Your task to perform on an android device: check data usage Image 0: 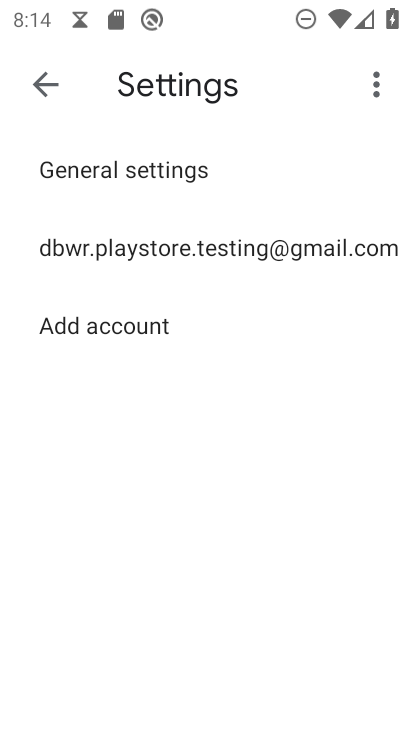
Step 0: press home button
Your task to perform on an android device: check data usage Image 1: 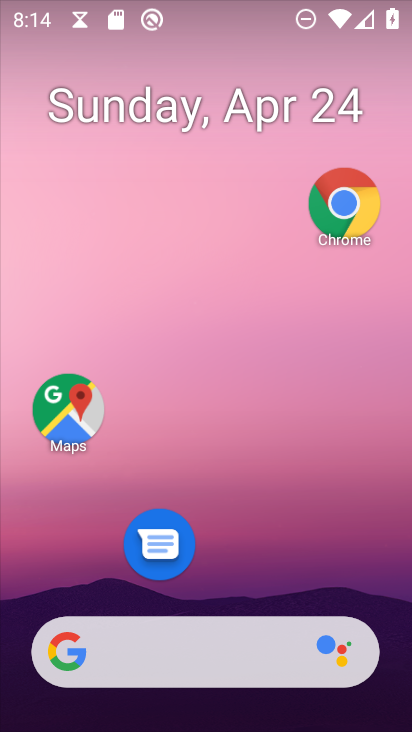
Step 1: drag from (159, 663) to (315, 36)
Your task to perform on an android device: check data usage Image 2: 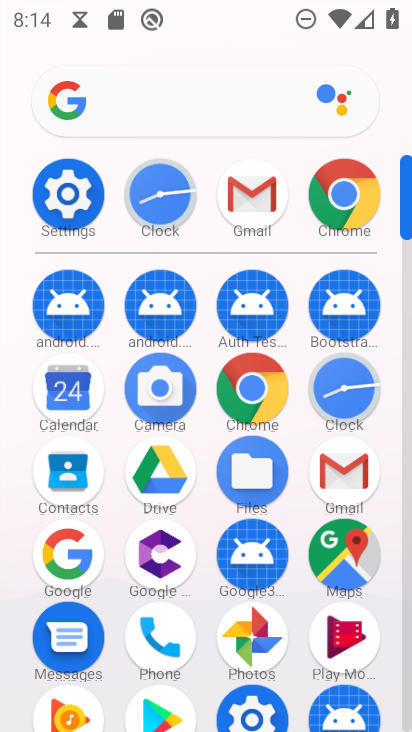
Step 2: click (72, 203)
Your task to perform on an android device: check data usage Image 3: 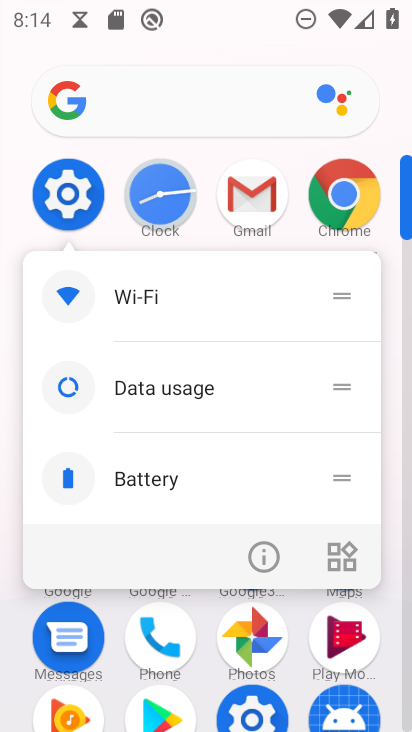
Step 3: click (68, 201)
Your task to perform on an android device: check data usage Image 4: 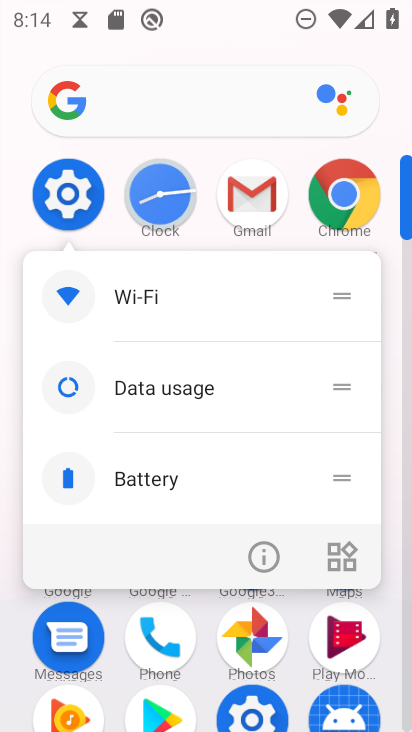
Step 4: click (68, 201)
Your task to perform on an android device: check data usage Image 5: 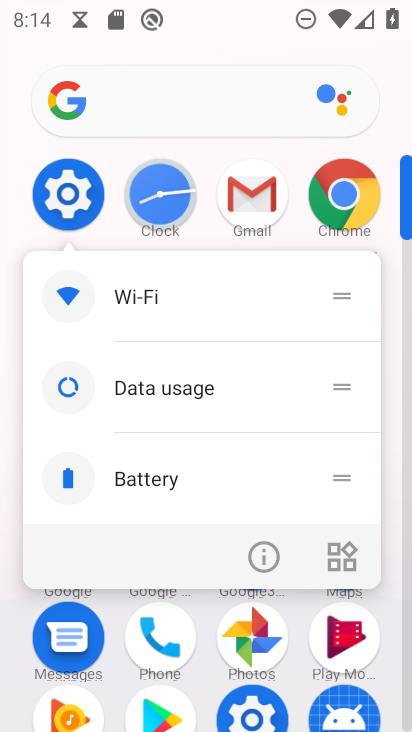
Step 5: click (72, 191)
Your task to perform on an android device: check data usage Image 6: 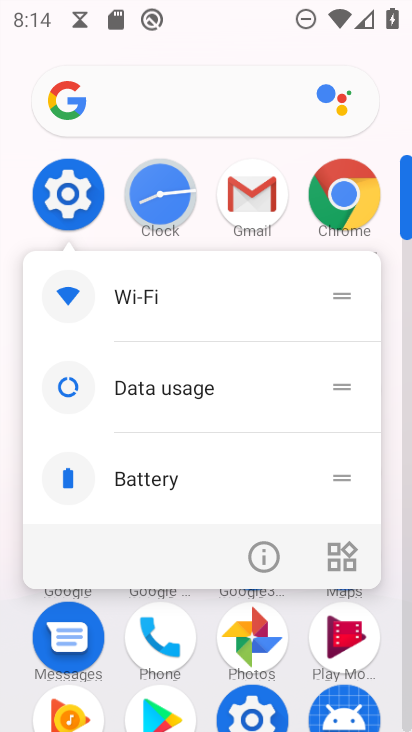
Step 6: click (70, 198)
Your task to perform on an android device: check data usage Image 7: 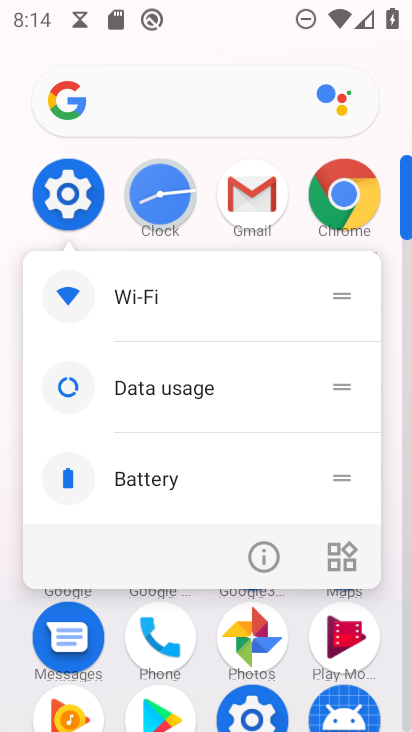
Step 7: click (57, 199)
Your task to perform on an android device: check data usage Image 8: 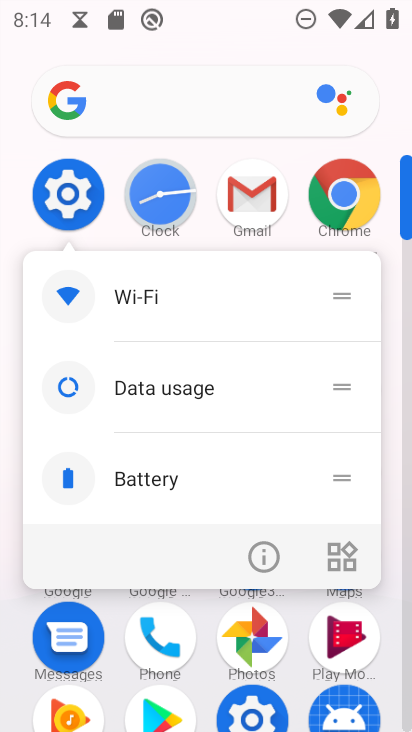
Step 8: click (58, 203)
Your task to perform on an android device: check data usage Image 9: 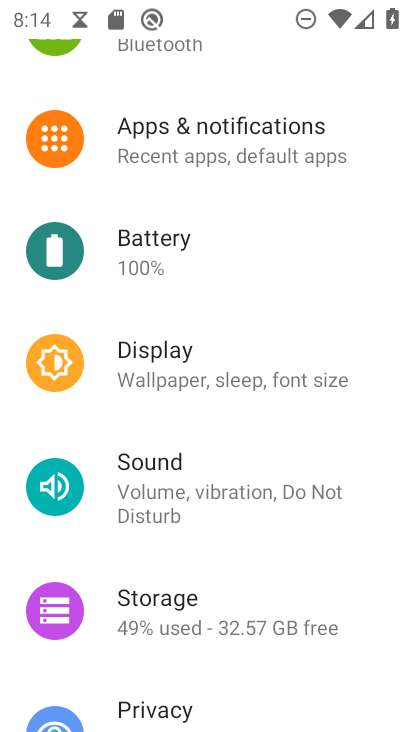
Step 9: drag from (259, 183) to (119, 518)
Your task to perform on an android device: check data usage Image 10: 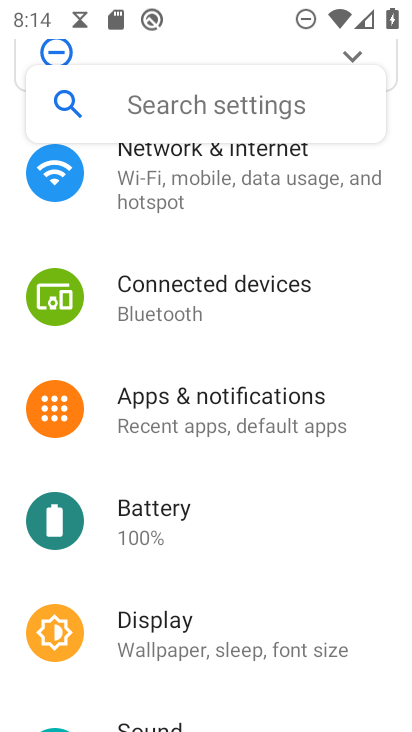
Step 10: drag from (238, 220) to (122, 553)
Your task to perform on an android device: check data usage Image 11: 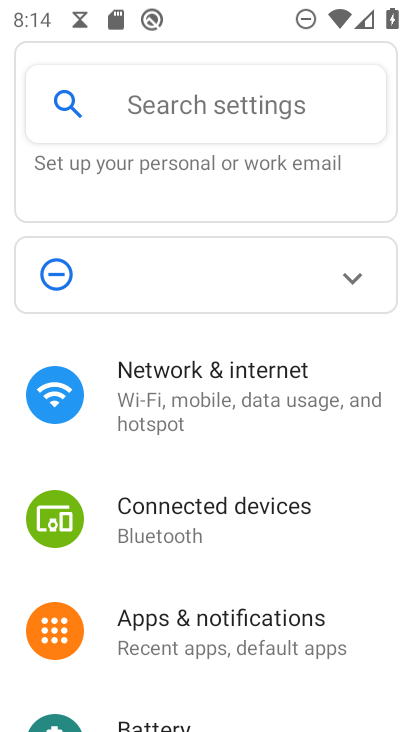
Step 11: click (225, 382)
Your task to perform on an android device: check data usage Image 12: 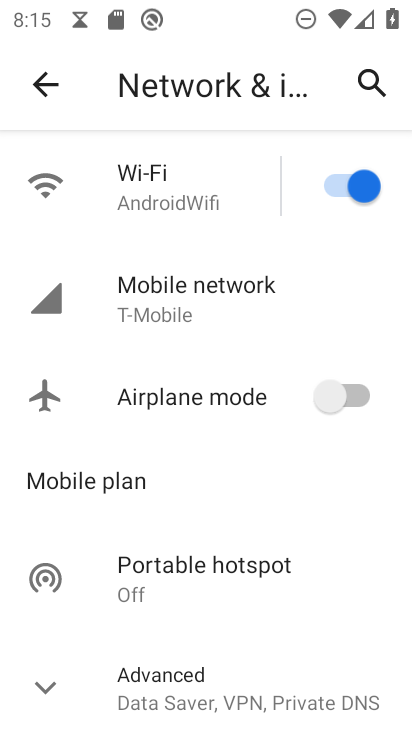
Step 12: click (166, 185)
Your task to perform on an android device: check data usage Image 13: 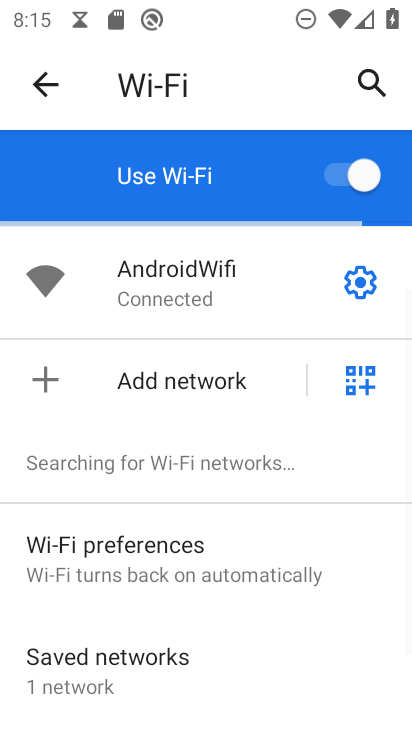
Step 13: drag from (179, 570) to (312, 10)
Your task to perform on an android device: check data usage Image 14: 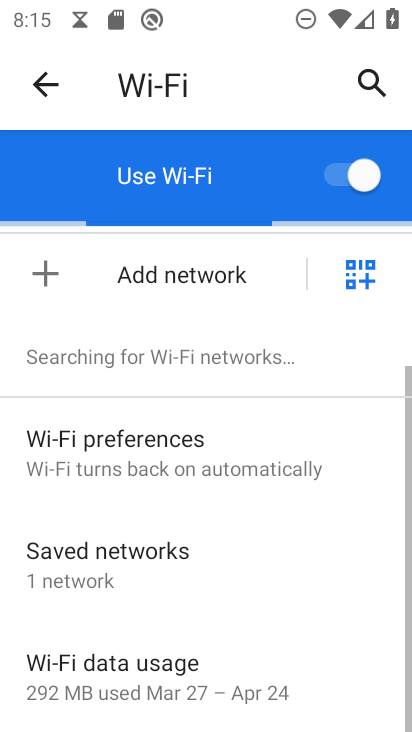
Step 14: click (77, 671)
Your task to perform on an android device: check data usage Image 15: 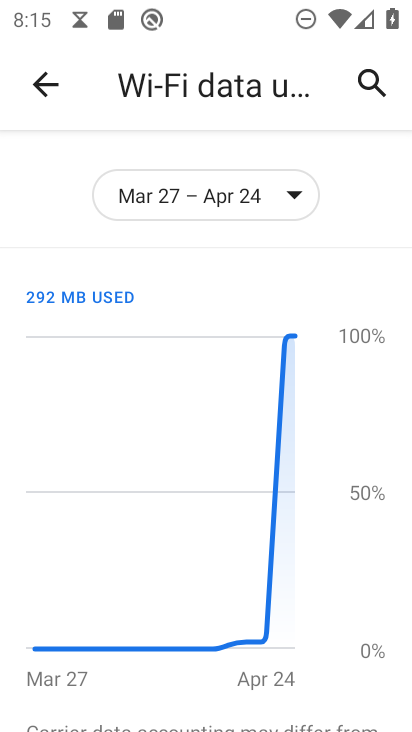
Step 15: task complete